Your task to perform on an android device: Go to network settings Image 0: 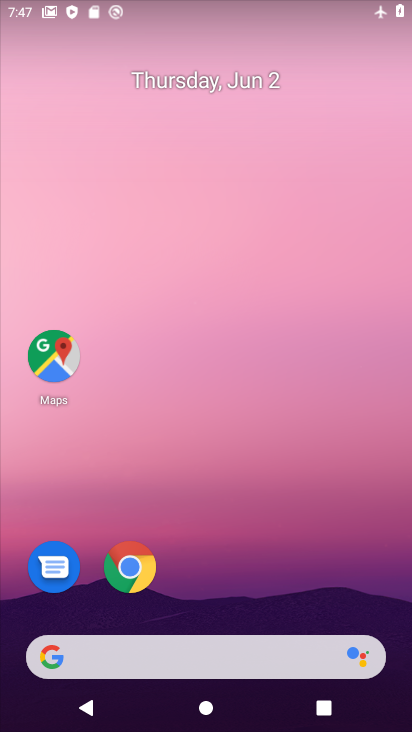
Step 0: drag from (272, 563) to (207, 159)
Your task to perform on an android device: Go to network settings Image 1: 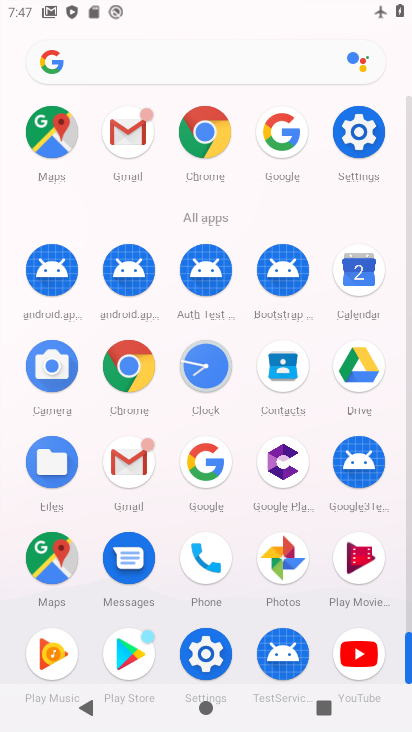
Step 1: click (355, 132)
Your task to perform on an android device: Go to network settings Image 2: 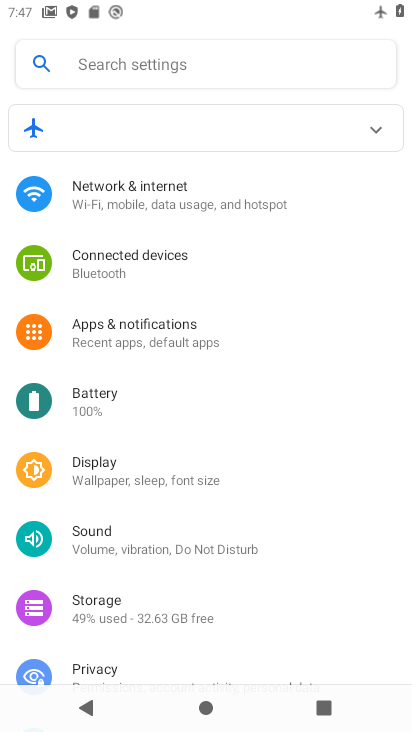
Step 2: click (190, 203)
Your task to perform on an android device: Go to network settings Image 3: 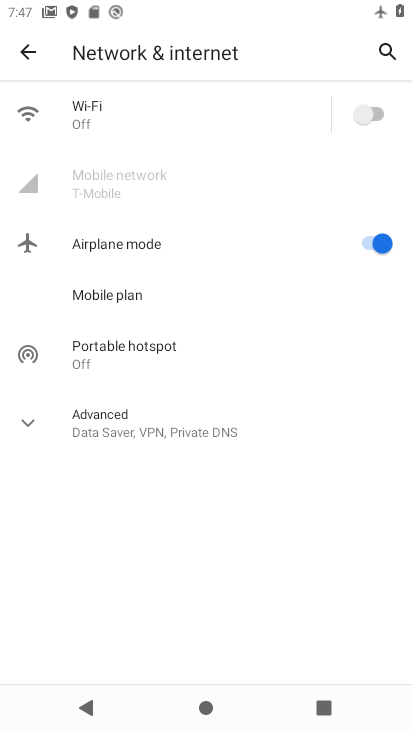
Step 3: task complete